Your task to perform on an android device: toggle notification dots Image 0: 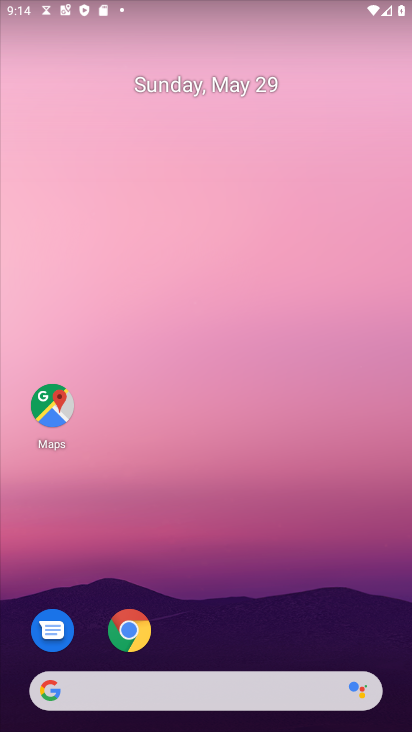
Step 0: drag from (266, 648) to (263, 136)
Your task to perform on an android device: toggle notification dots Image 1: 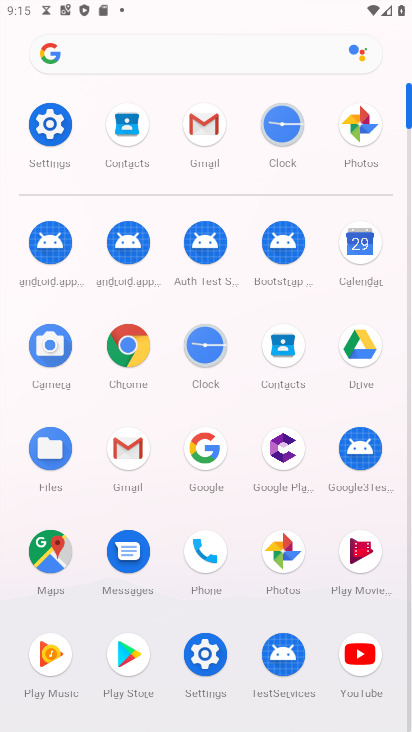
Step 1: click (51, 125)
Your task to perform on an android device: toggle notification dots Image 2: 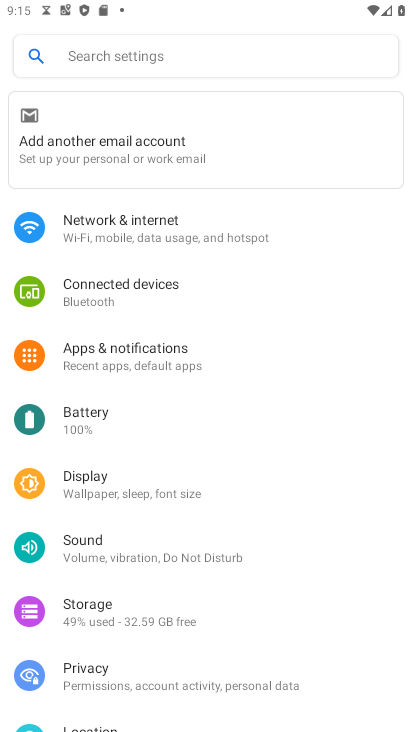
Step 2: click (141, 353)
Your task to perform on an android device: toggle notification dots Image 3: 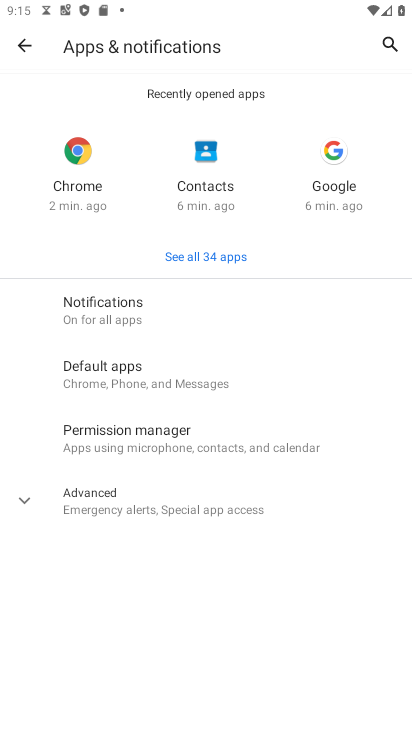
Step 3: click (180, 322)
Your task to perform on an android device: toggle notification dots Image 4: 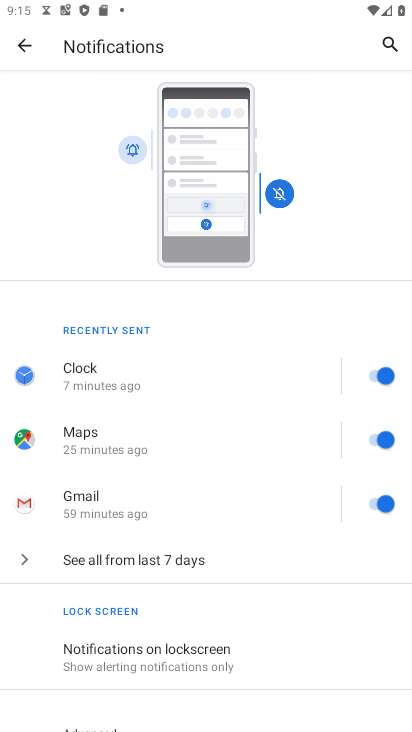
Step 4: drag from (250, 670) to (209, 334)
Your task to perform on an android device: toggle notification dots Image 5: 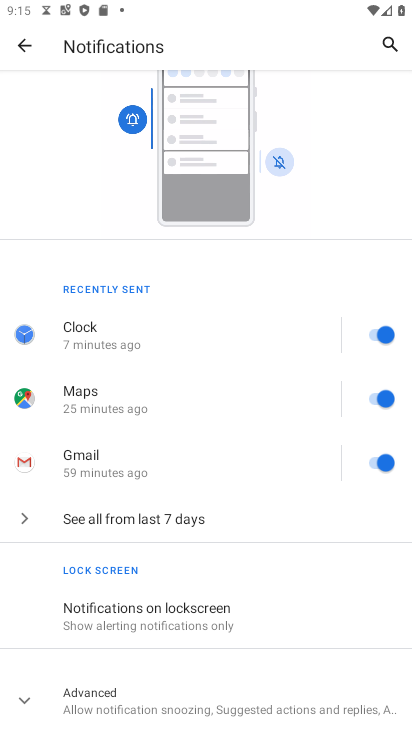
Step 5: click (200, 691)
Your task to perform on an android device: toggle notification dots Image 6: 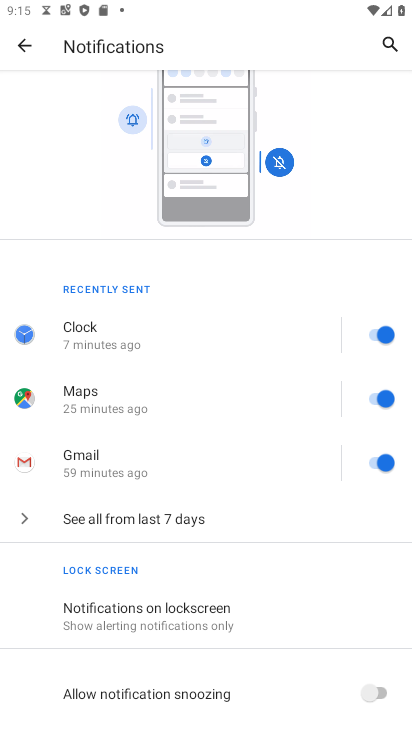
Step 6: drag from (253, 652) to (252, 470)
Your task to perform on an android device: toggle notification dots Image 7: 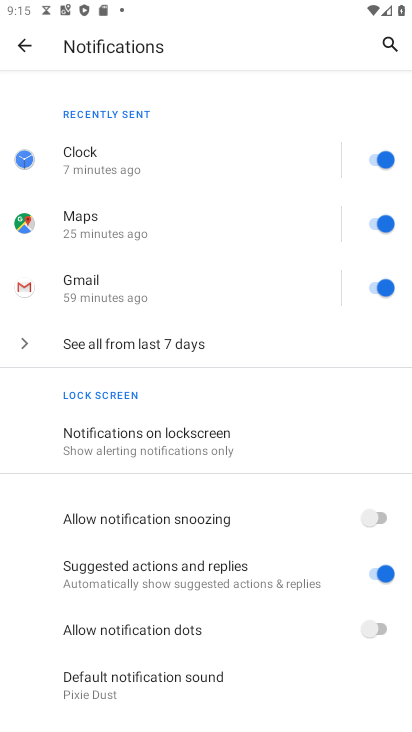
Step 7: click (384, 632)
Your task to perform on an android device: toggle notification dots Image 8: 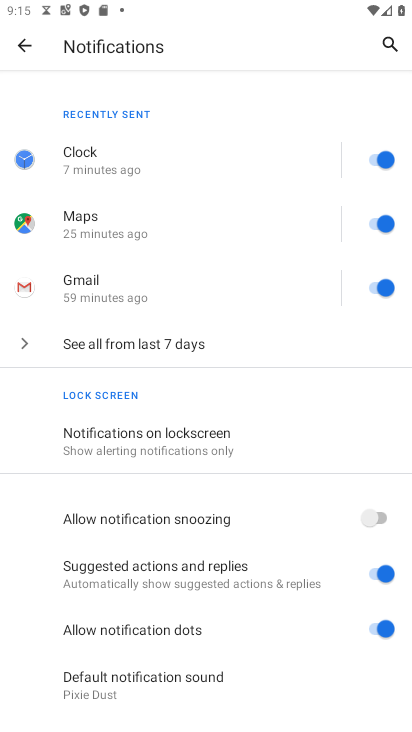
Step 8: task complete